Your task to perform on an android device: What's on my calendar tomorrow? Image 0: 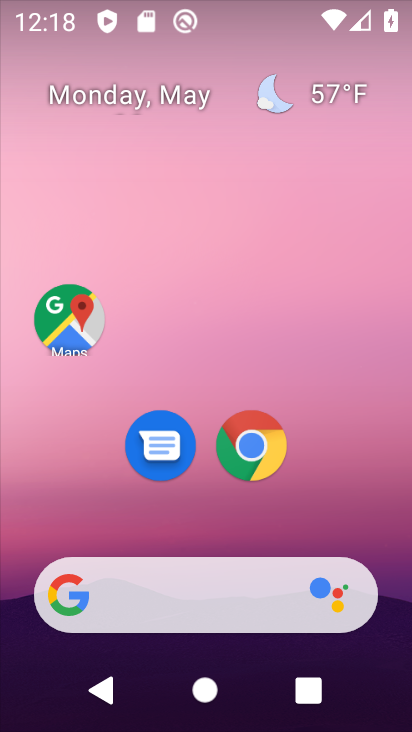
Step 0: drag from (388, 595) to (309, 75)
Your task to perform on an android device: What's on my calendar tomorrow? Image 1: 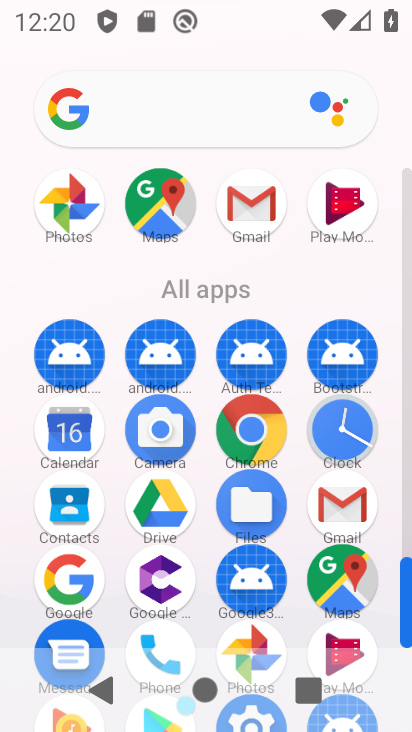
Step 1: click (78, 428)
Your task to perform on an android device: What's on my calendar tomorrow? Image 2: 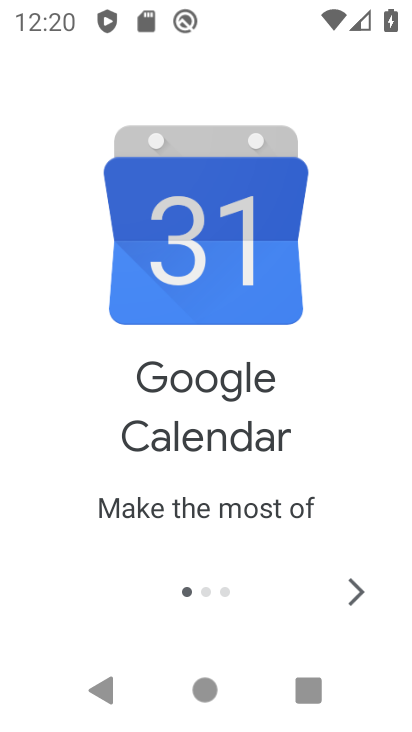
Step 2: click (370, 594)
Your task to perform on an android device: What's on my calendar tomorrow? Image 3: 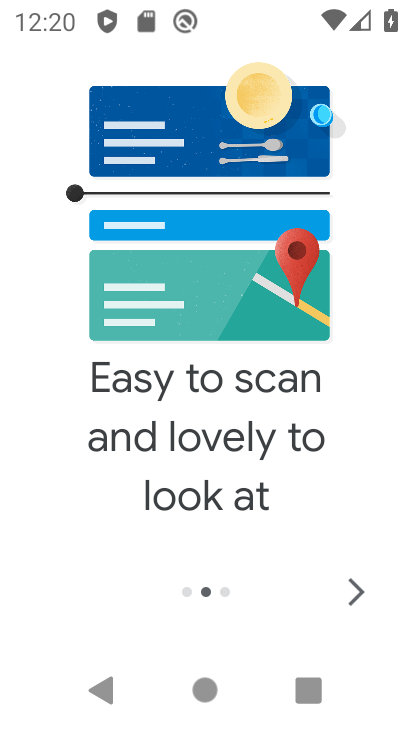
Step 3: click (370, 594)
Your task to perform on an android device: What's on my calendar tomorrow? Image 4: 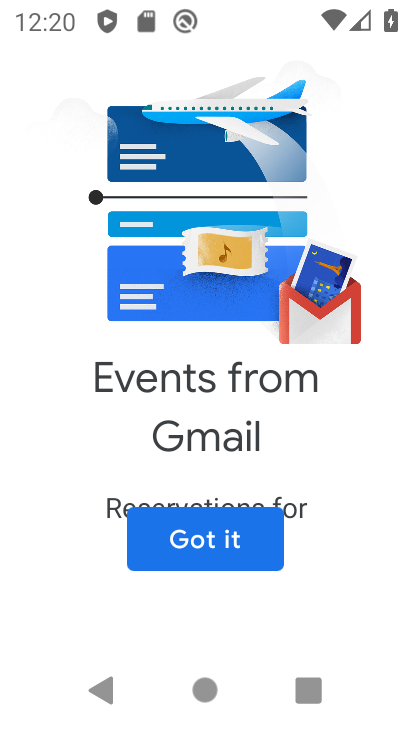
Step 4: click (245, 536)
Your task to perform on an android device: What's on my calendar tomorrow? Image 5: 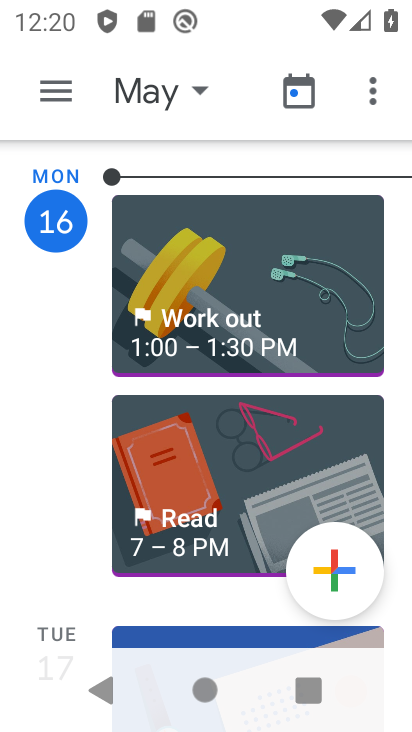
Step 5: click (169, 97)
Your task to perform on an android device: What's on my calendar tomorrow? Image 6: 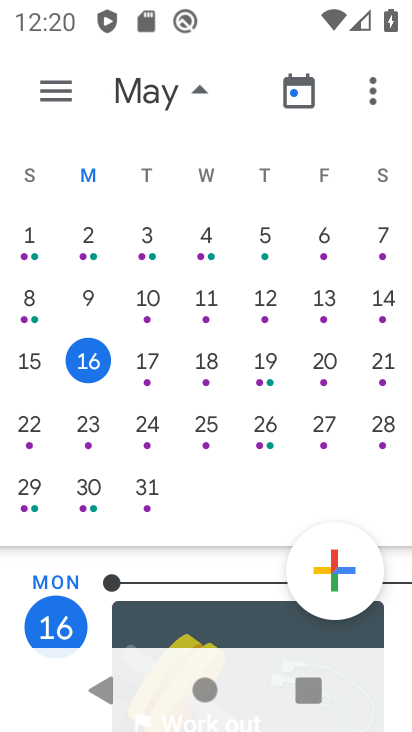
Step 6: click (160, 348)
Your task to perform on an android device: What's on my calendar tomorrow? Image 7: 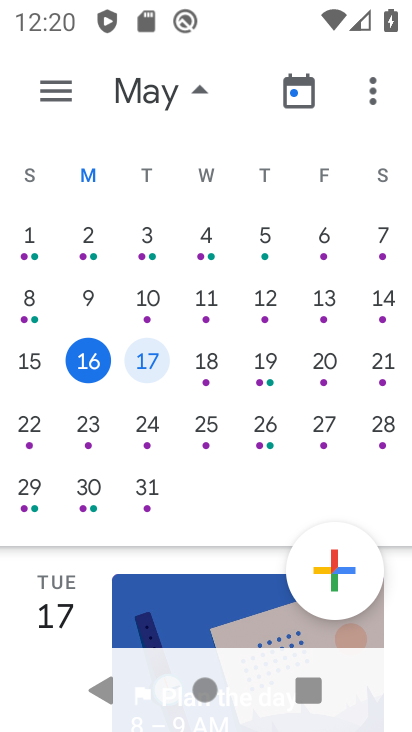
Step 7: click (150, 361)
Your task to perform on an android device: What's on my calendar tomorrow? Image 8: 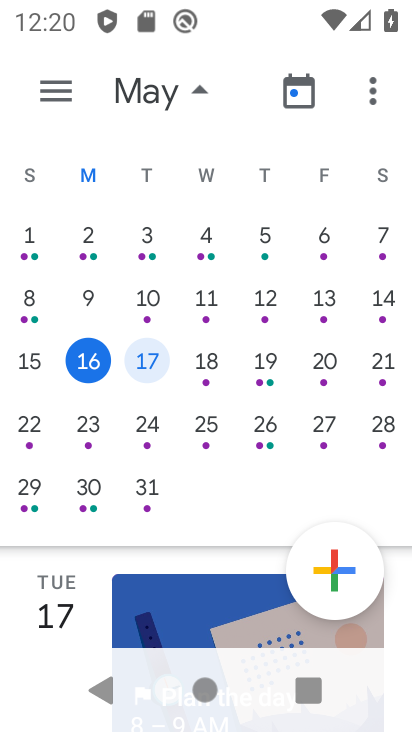
Step 8: click (147, 580)
Your task to perform on an android device: What's on my calendar tomorrow? Image 9: 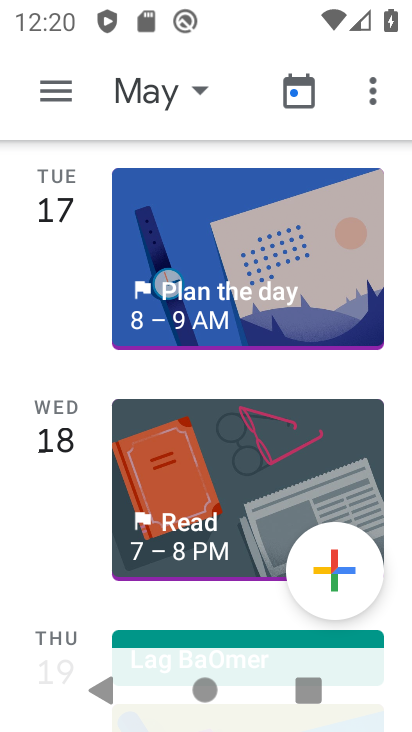
Step 9: task complete